Your task to perform on an android device: search for starred emails in the gmail app Image 0: 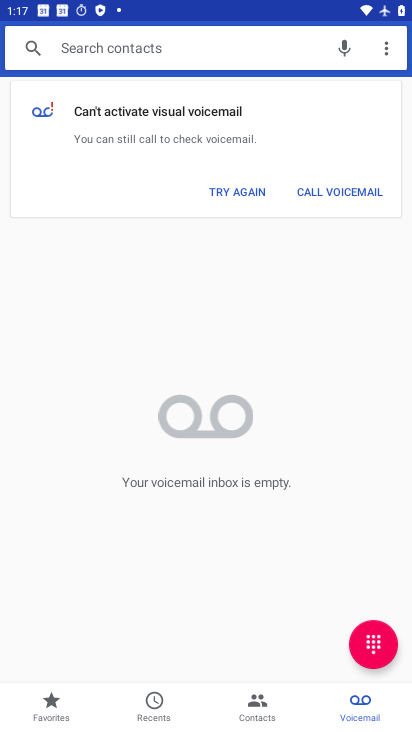
Step 0: press home button
Your task to perform on an android device: search for starred emails in the gmail app Image 1: 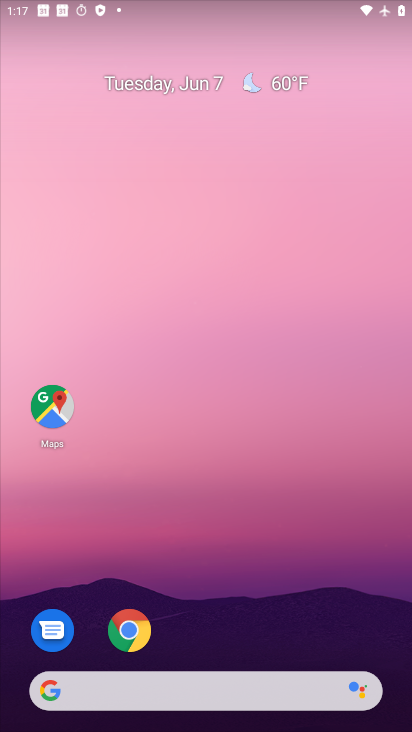
Step 1: drag from (373, 617) to (272, 59)
Your task to perform on an android device: search for starred emails in the gmail app Image 2: 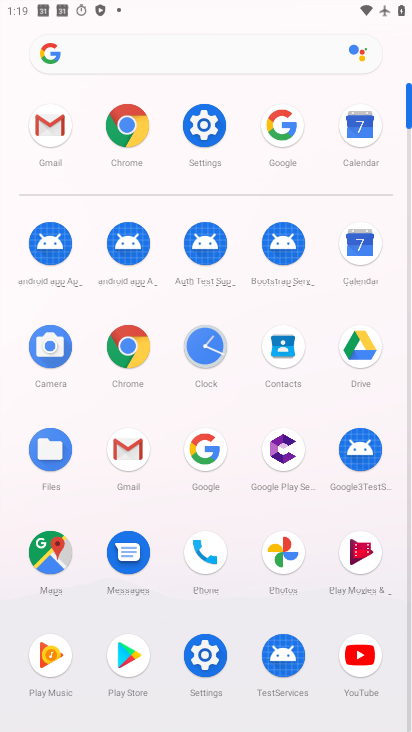
Step 2: click (130, 451)
Your task to perform on an android device: search for starred emails in the gmail app Image 3: 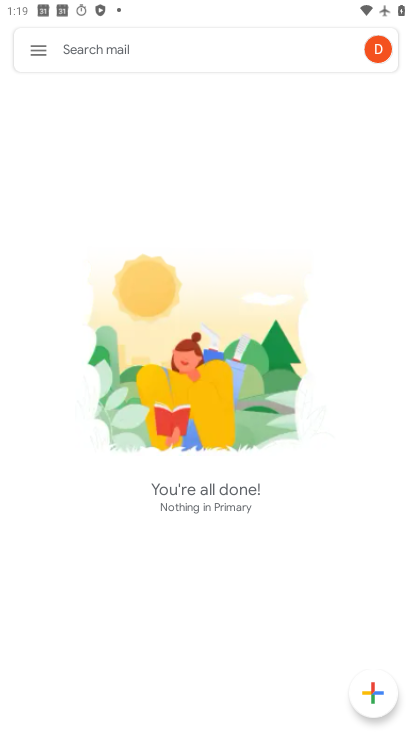
Step 3: click (35, 45)
Your task to perform on an android device: search for starred emails in the gmail app Image 4: 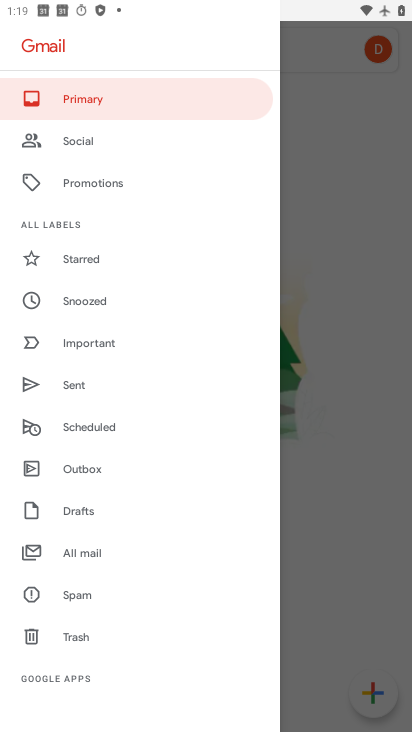
Step 4: click (94, 260)
Your task to perform on an android device: search for starred emails in the gmail app Image 5: 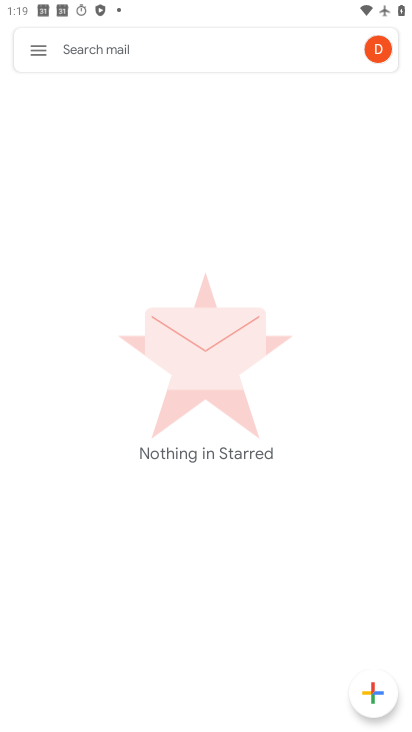
Step 5: task complete